Your task to perform on an android device: Open display settings Image 0: 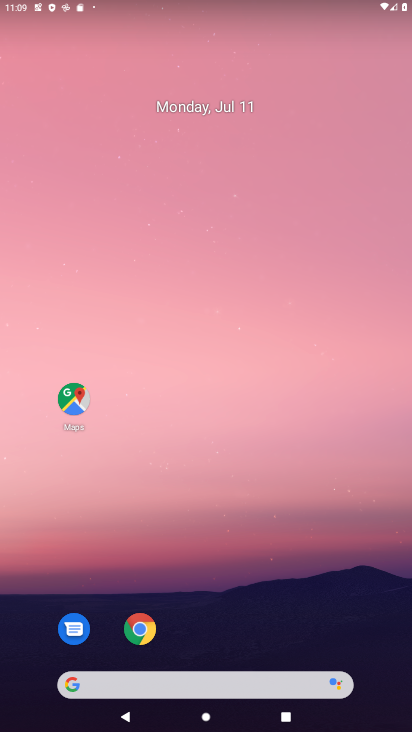
Step 0: drag from (297, 629) to (272, 178)
Your task to perform on an android device: Open display settings Image 1: 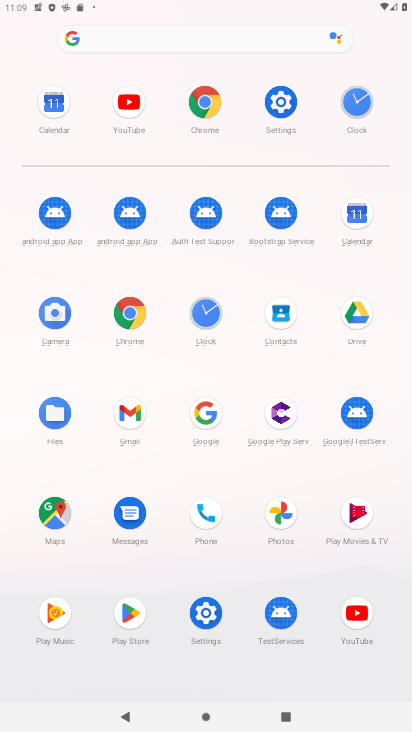
Step 1: click (289, 110)
Your task to perform on an android device: Open display settings Image 2: 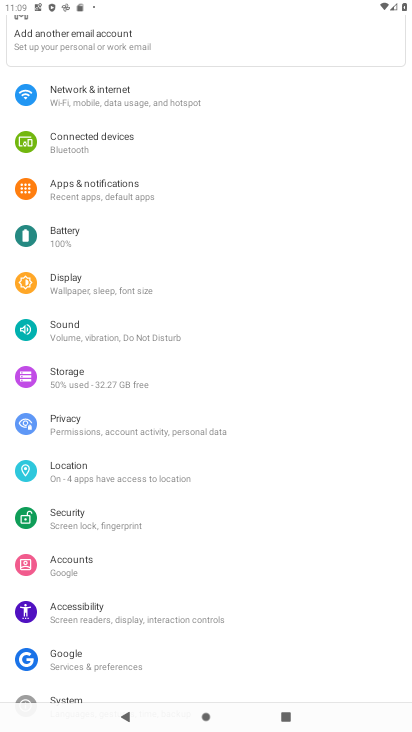
Step 2: click (144, 283)
Your task to perform on an android device: Open display settings Image 3: 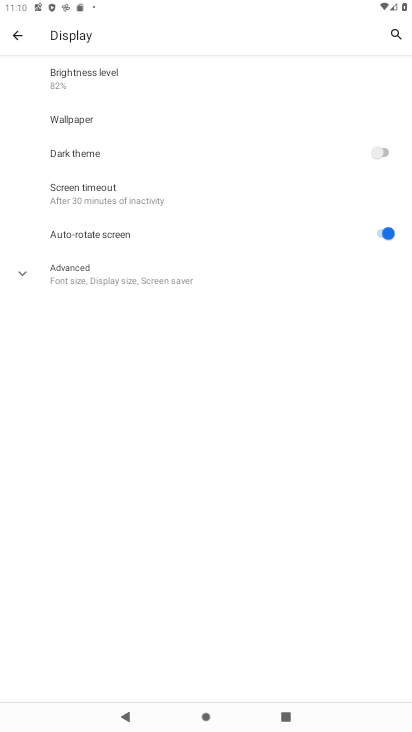
Step 3: task complete